Your task to perform on an android device: find photos in the google photos app Image 0: 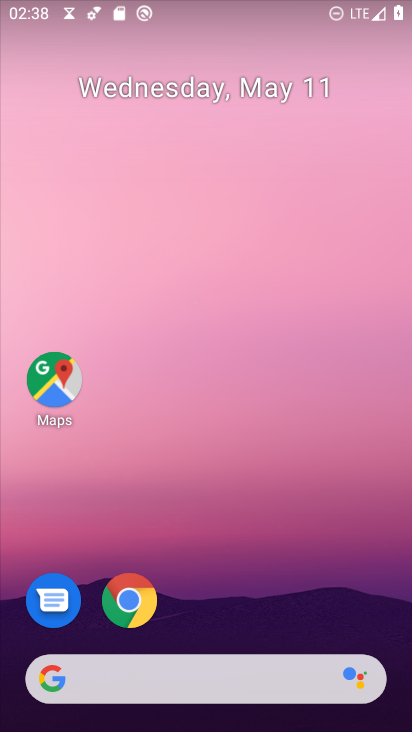
Step 0: click (313, 304)
Your task to perform on an android device: find photos in the google photos app Image 1: 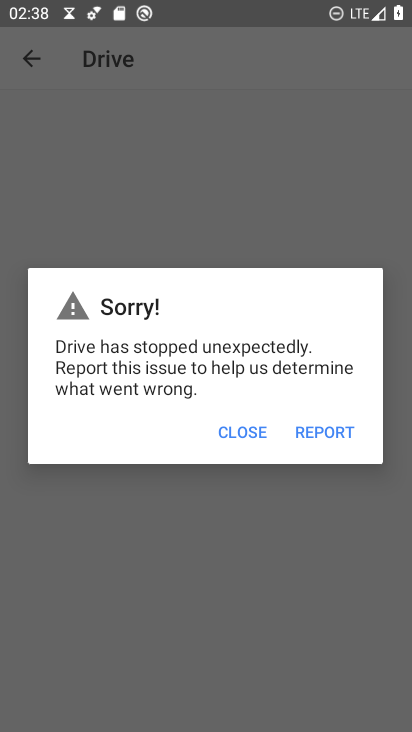
Step 1: press home button
Your task to perform on an android device: find photos in the google photos app Image 2: 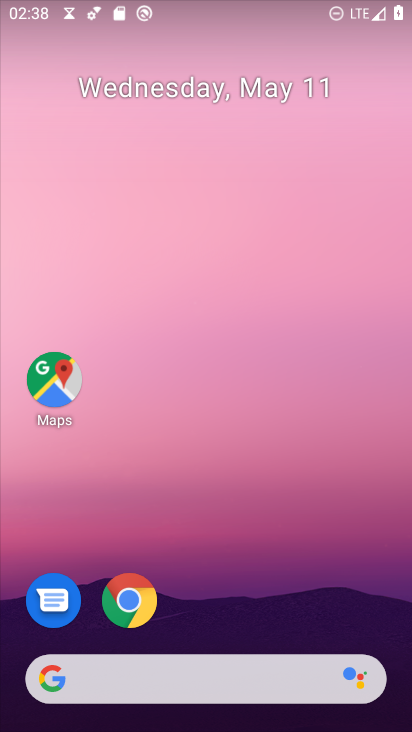
Step 2: drag from (277, 510) to (287, 208)
Your task to perform on an android device: find photos in the google photos app Image 3: 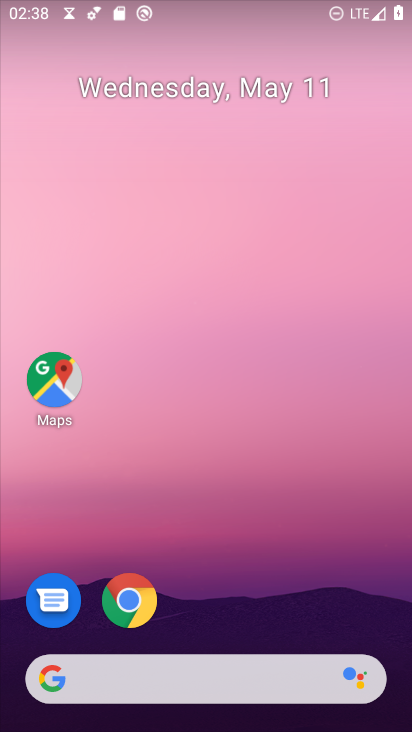
Step 3: drag from (247, 577) to (251, 141)
Your task to perform on an android device: find photos in the google photos app Image 4: 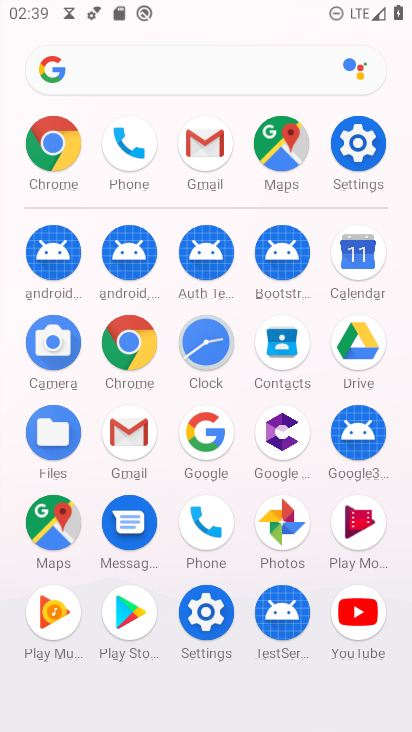
Step 4: click (274, 515)
Your task to perform on an android device: find photos in the google photos app Image 5: 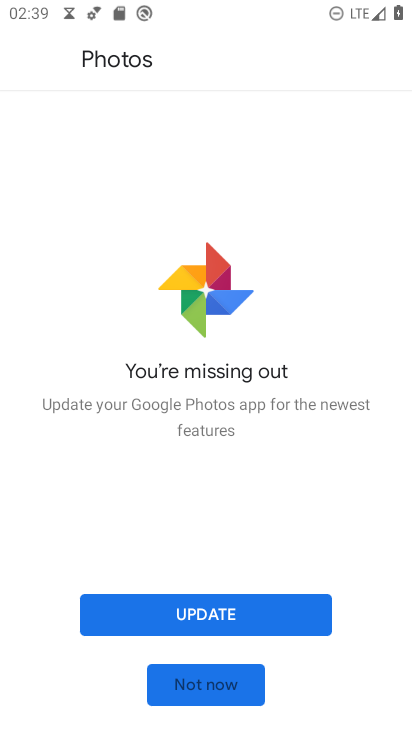
Step 5: click (222, 681)
Your task to perform on an android device: find photos in the google photos app Image 6: 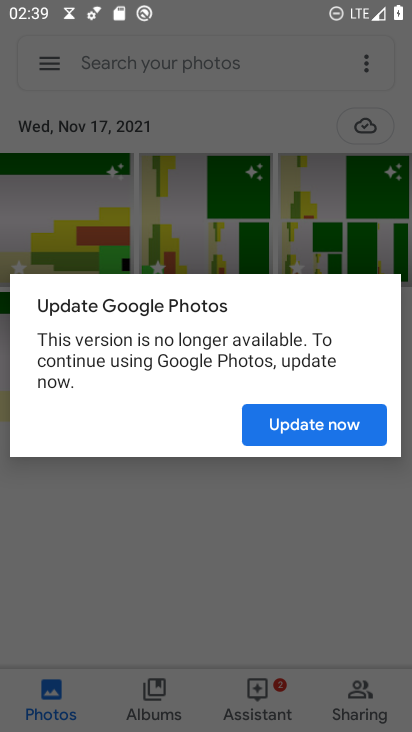
Step 6: click (347, 424)
Your task to perform on an android device: find photos in the google photos app Image 7: 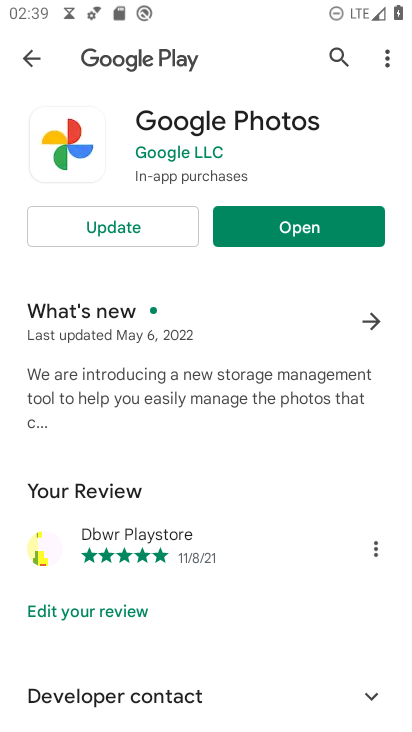
Step 7: task complete